Your task to perform on an android device: uninstall "Lyft - Rideshare, Bikes, Scooters & Transit" Image 0: 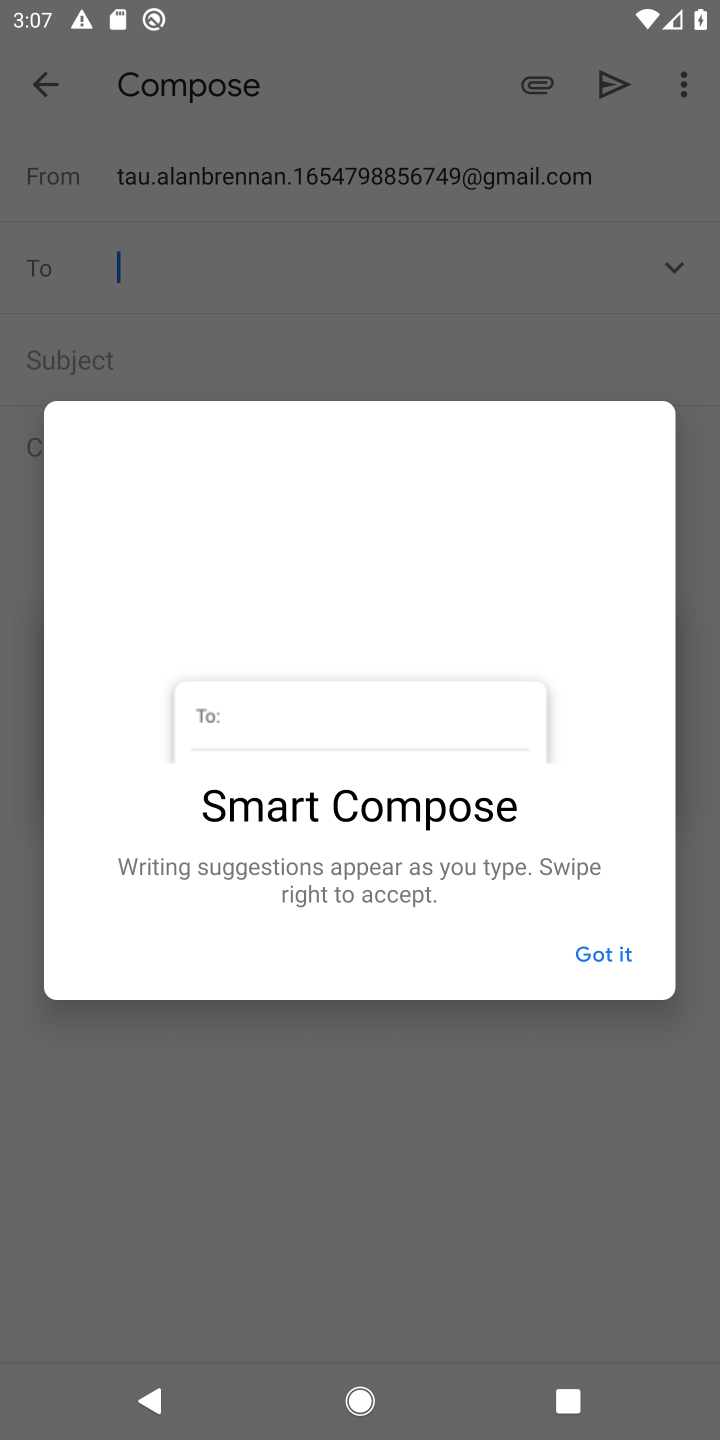
Step 0: press home button
Your task to perform on an android device: uninstall "Lyft - Rideshare, Bikes, Scooters & Transit" Image 1: 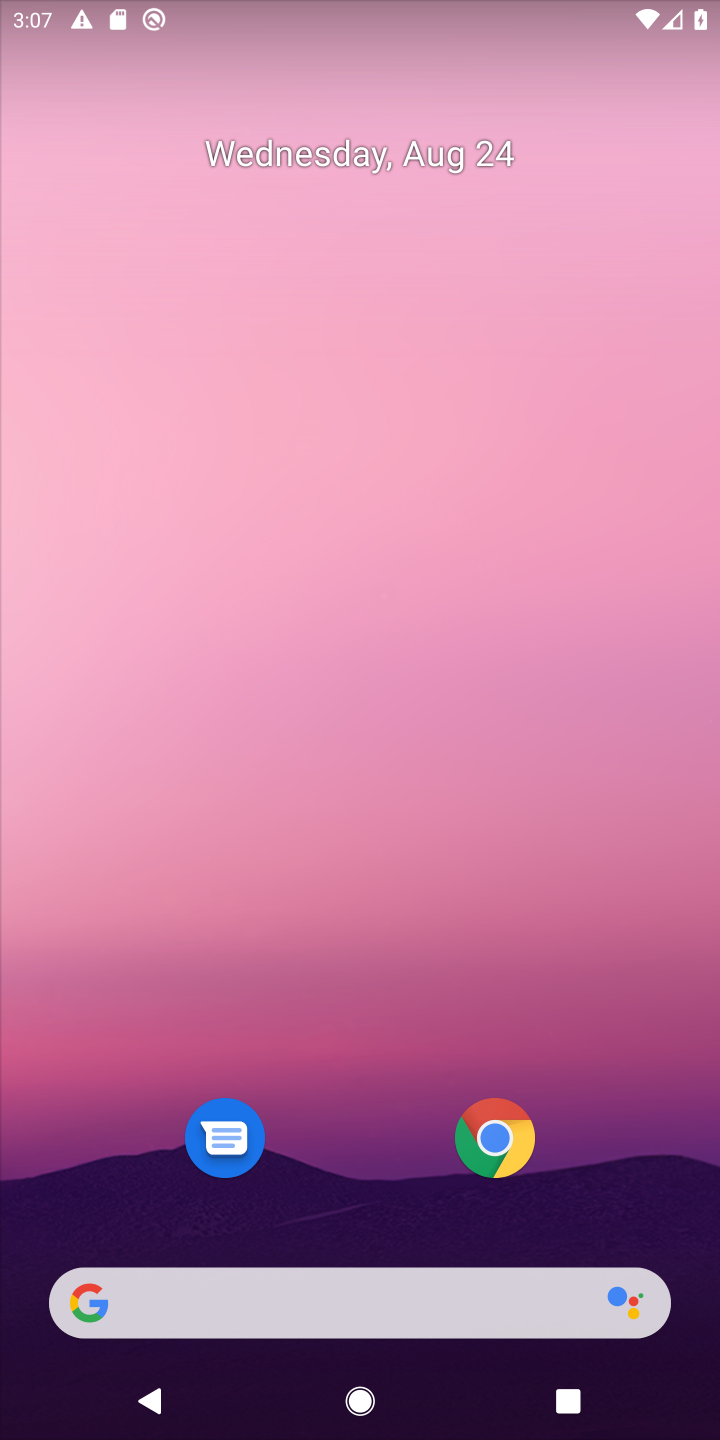
Step 1: drag from (332, 748) to (332, 176)
Your task to perform on an android device: uninstall "Lyft - Rideshare, Bikes, Scooters & Transit" Image 2: 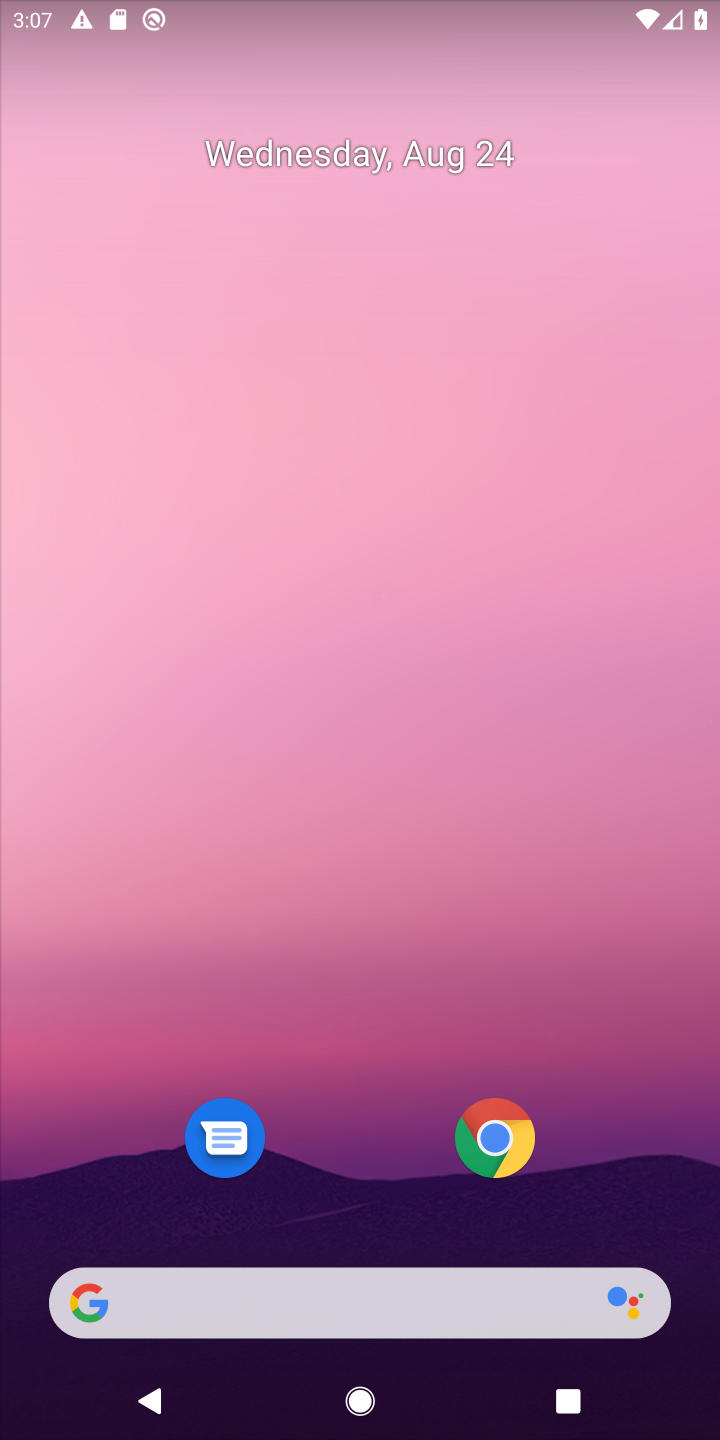
Step 2: drag from (375, 1245) to (352, 116)
Your task to perform on an android device: uninstall "Lyft - Rideshare, Bikes, Scooters & Transit" Image 3: 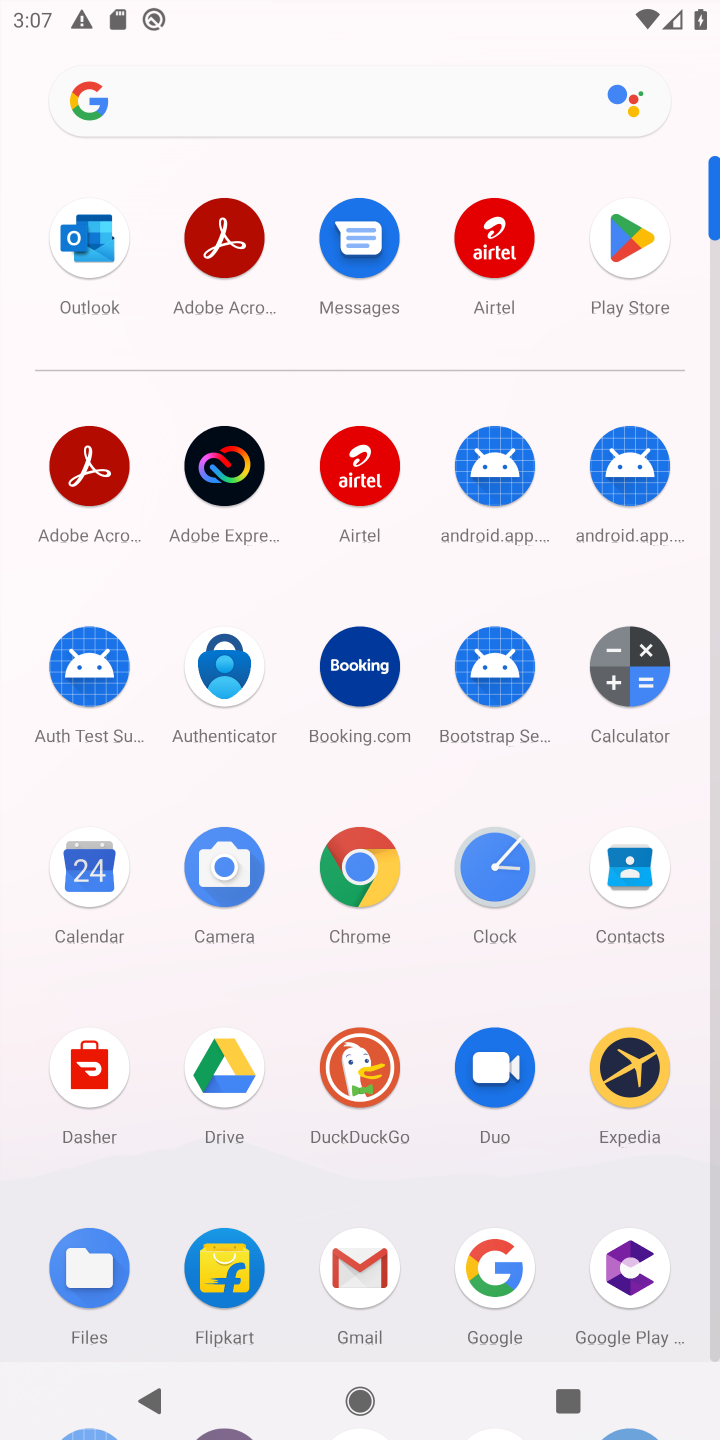
Step 3: click (623, 238)
Your task to perform on an android device: uninstall "Lyft - Rideshare, Bikes, Scooters & Transit" Image 4: 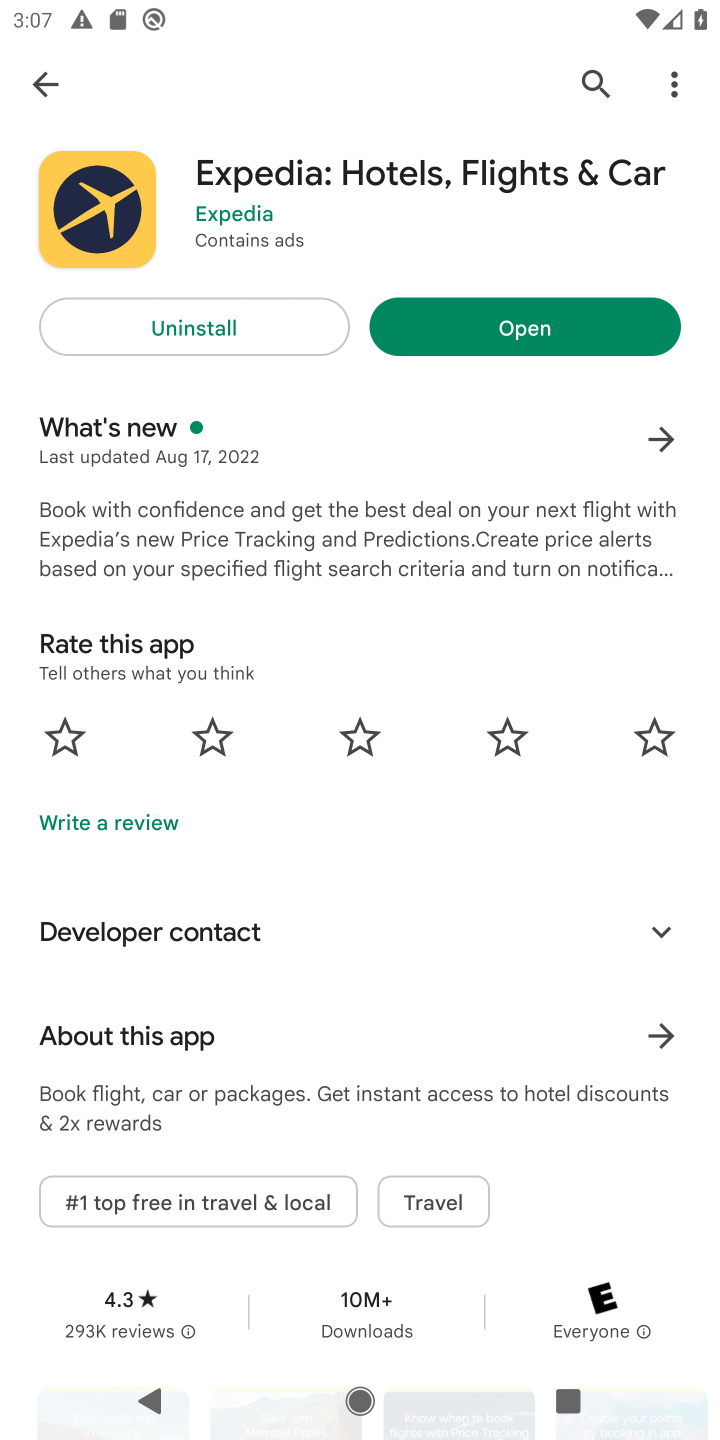
Step 4: click (594, 78)
Your task to perform on an android device: uninstall "Lyft - Rideshare, Bikes, Scooters & Transit" Image 5: 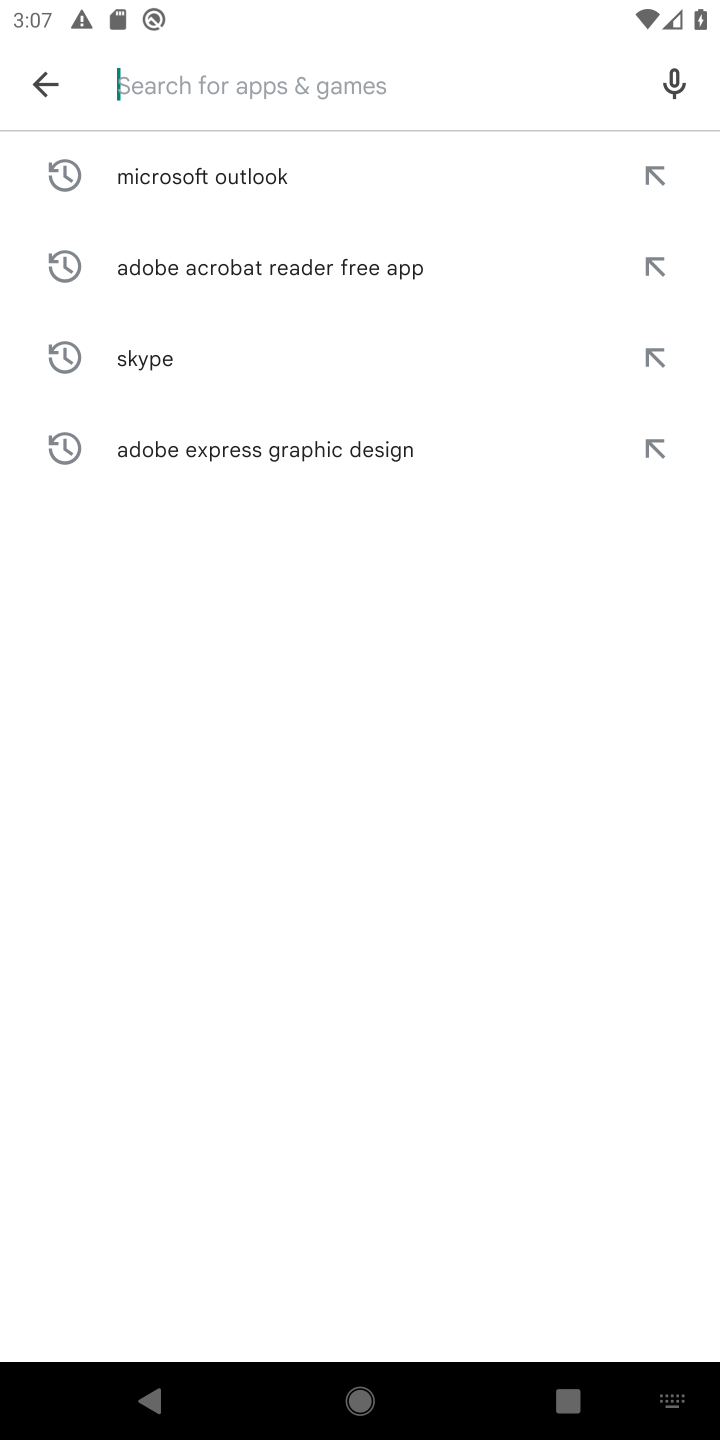
Step 5: type "Lyft - Rideshare, Bikes, Scooters & Transit"
Your task to perform on an android device: uninstall "Lyft - Rideshare, Bikes, Scooters & Transit" Image 6: 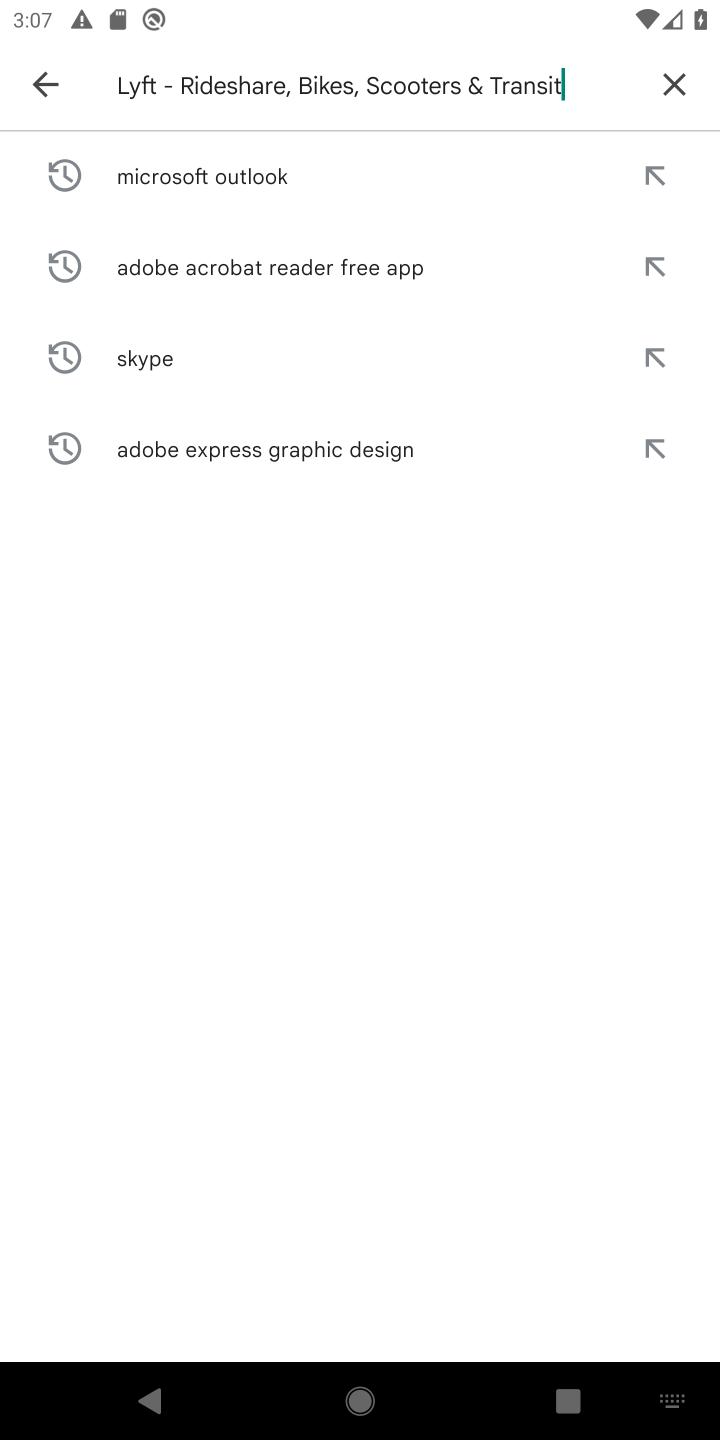
Step 6: type ""
Your task to perform on an android device: uninstall "Lyft - Rideshare, Bikes, Scooters & Transit" Image 7: 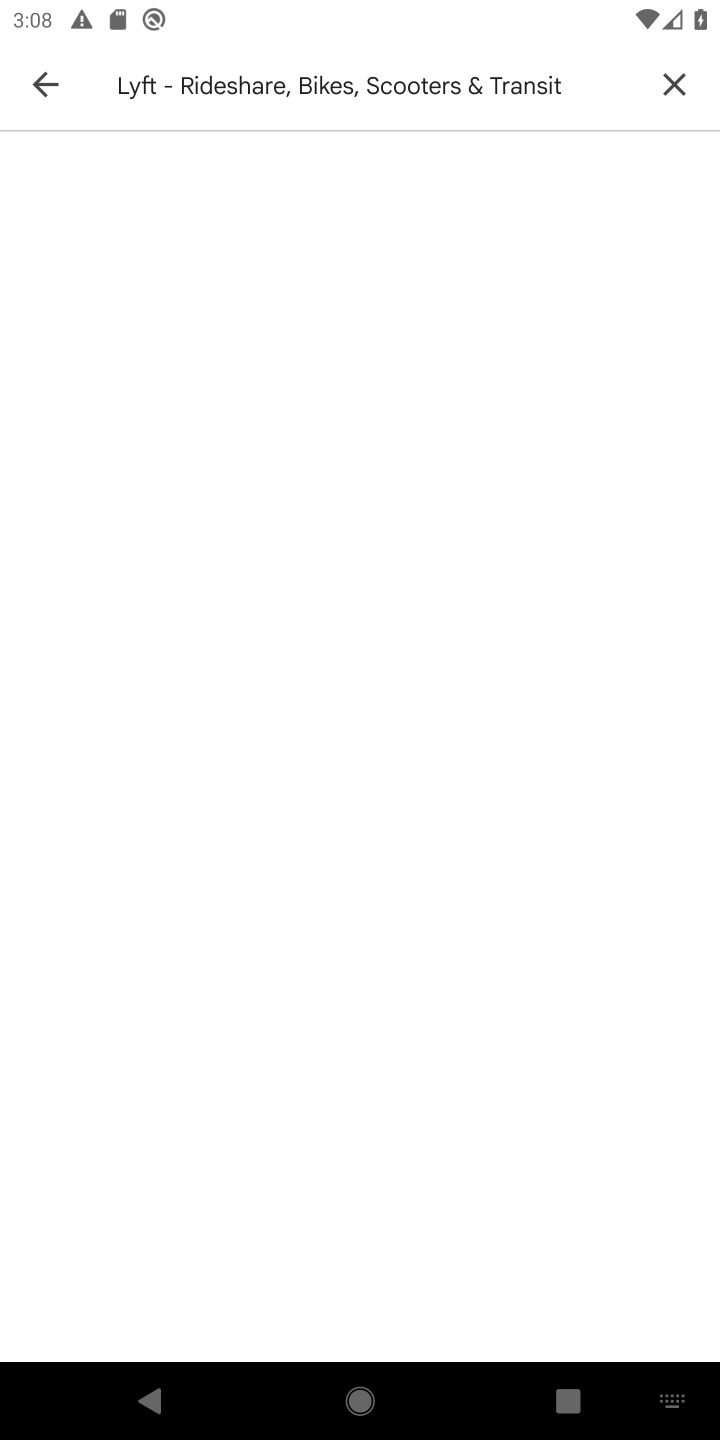
Step 7: click (674, 83)
Your task to perform on an android device: uninstall "Lyft - Rideshare, Bikes, Scooters & Transit" Image 8: 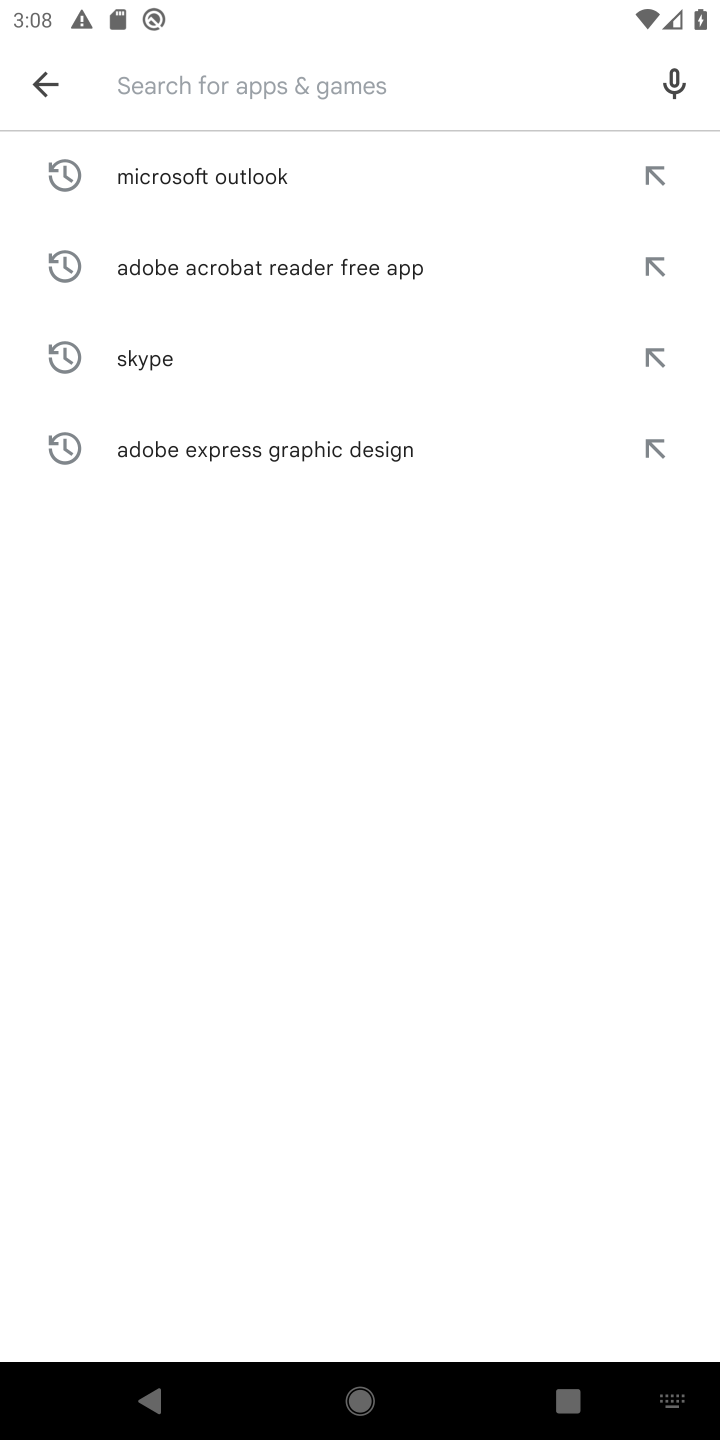
Step 8: type "Lyft"
Your task to perform on an android device: uninstall "Lyft - Rideshare, Bikes, Scooters & Transit" Image 9: 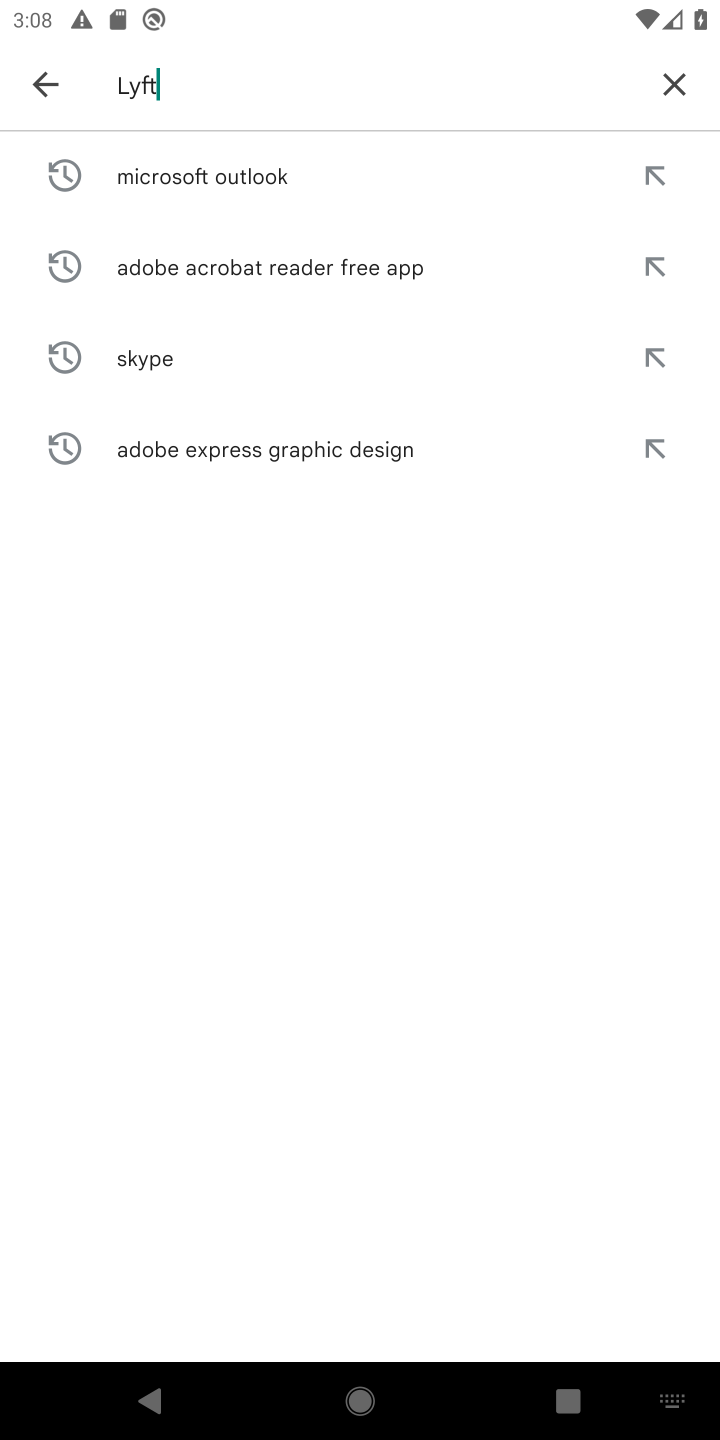
Step 9: type ""
Your task to perform on an android device: uninstall "Lyft - Rideshare, Bikes, Scooters & Transit" Image 10: 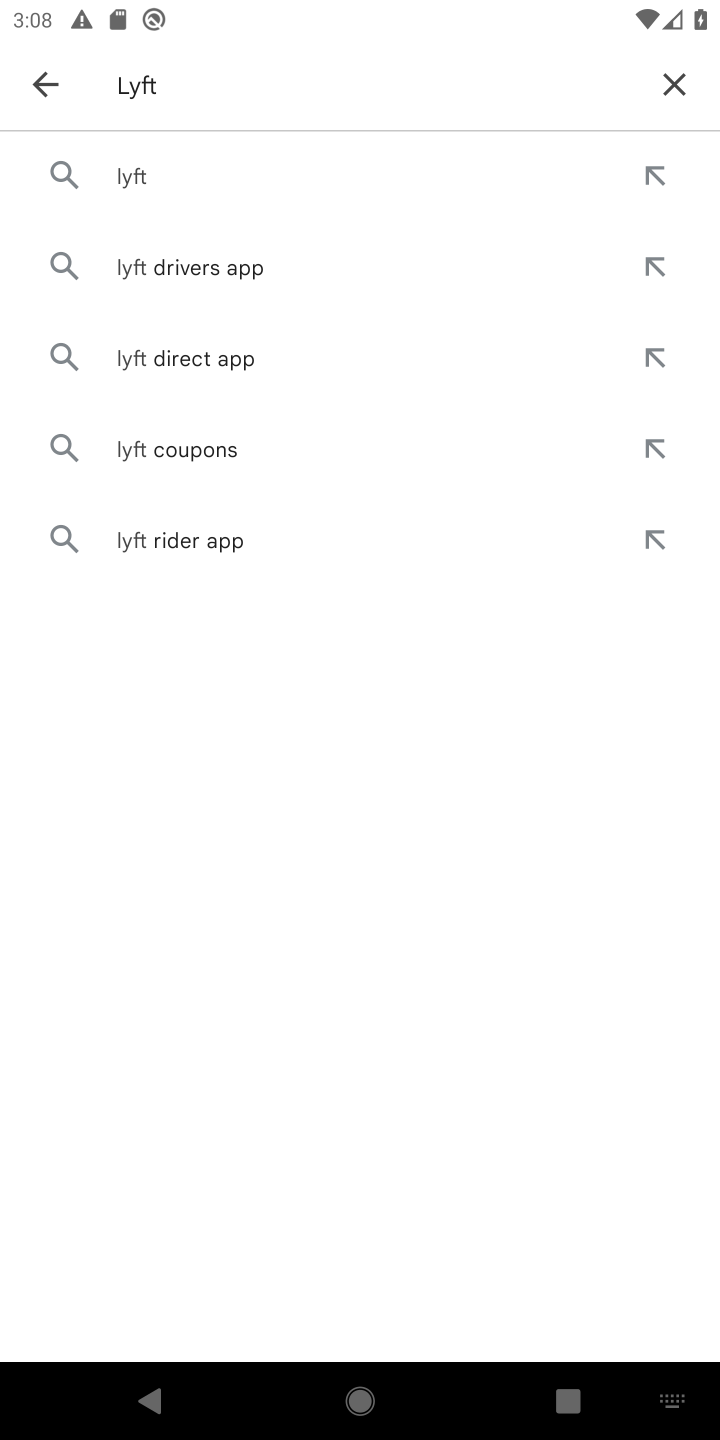
Step 10: click (133, 169)
Your task to perform on an android device: uninstall "Lyft - Rideshare, Bikes, Scooters & Transit" Image 11: 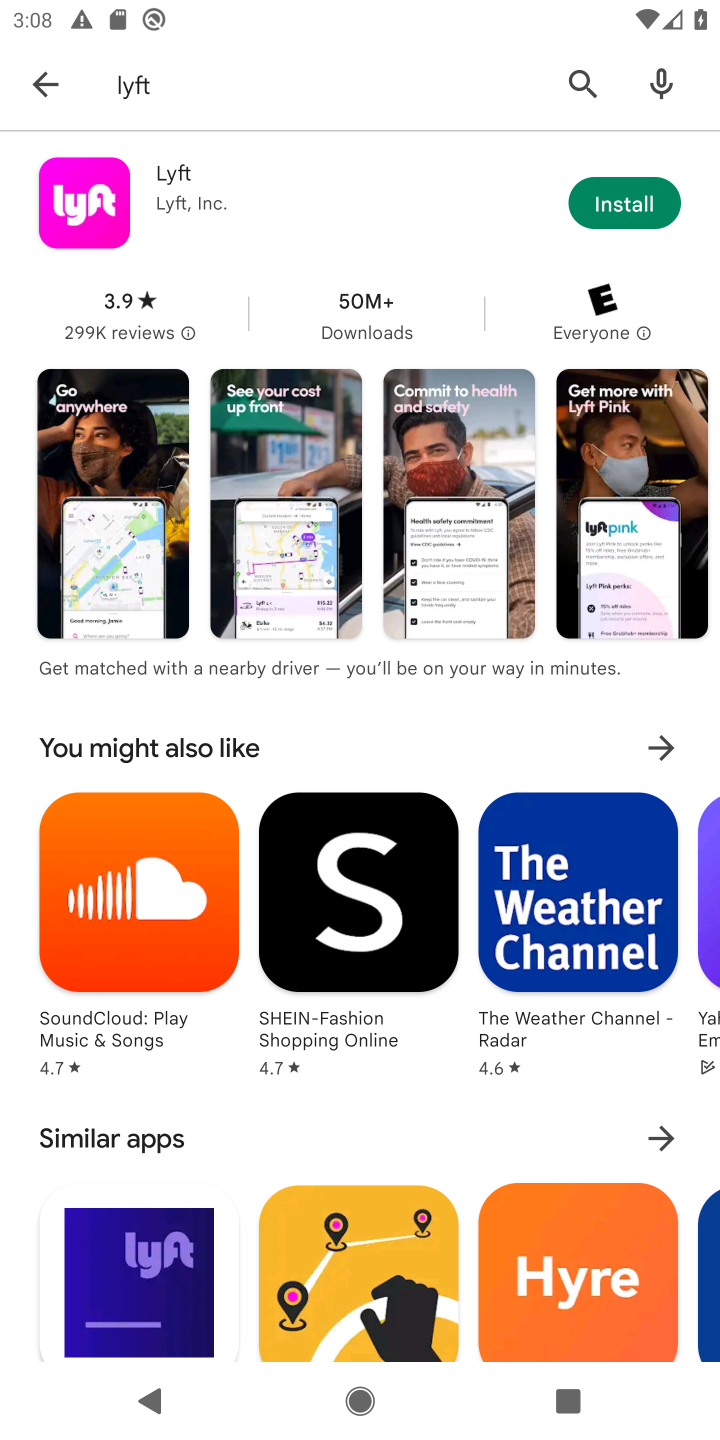
Step 11: task complete